Your task to perform on an android device: turn smart compose on in the gmail app Image 0: 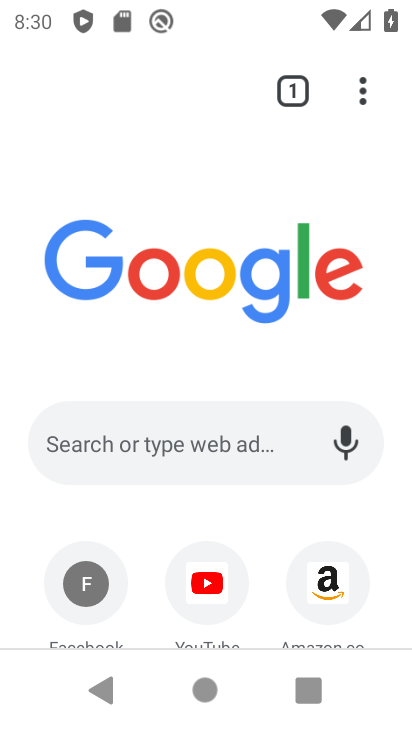
Step 0: press home button
Your task to perform on an android device: turn smart compose on in the gmail app Image 1: 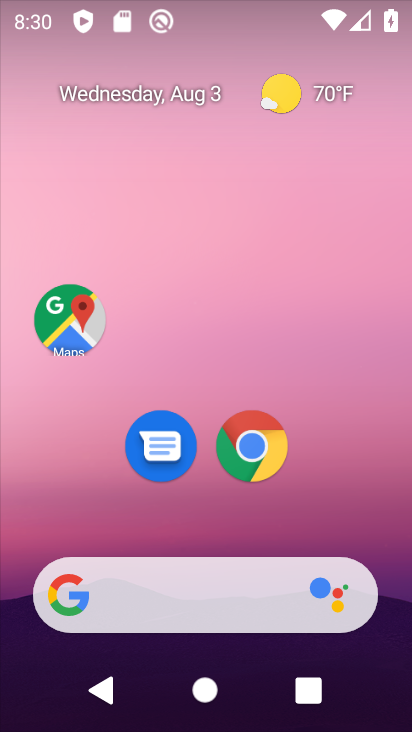
Step 1: drag from (387, 554) to (319, 60)
Your task to perform on an android device: turn smart compose on in the gmail app Image 2: 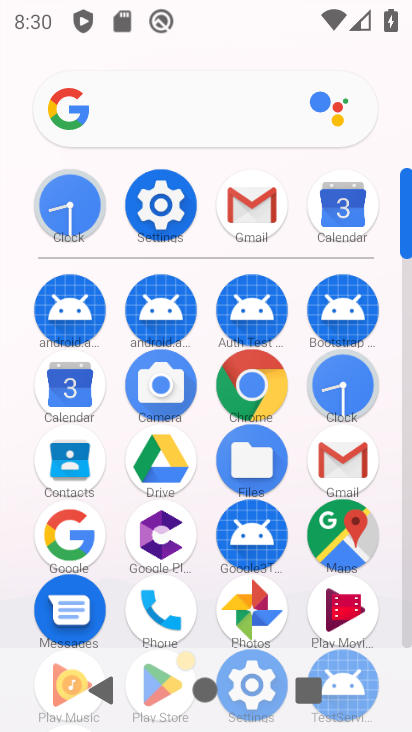
Step 2: click (243, 203)
Your task to perform on an android device: turn smart compose on in the gmail app Image 3: 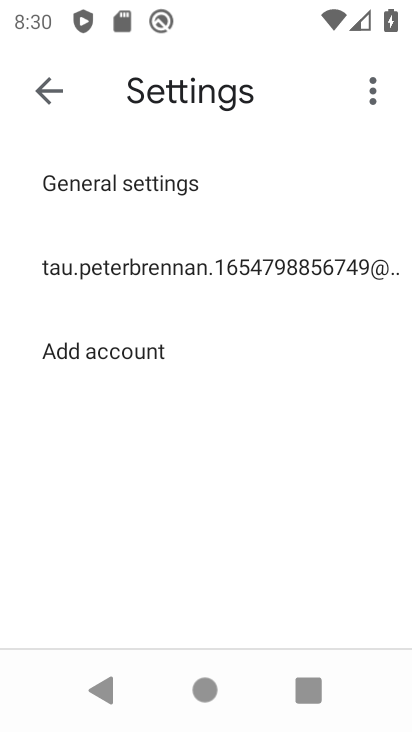
Step 3: click (131, 272)
Your task to perform on an android device: turn smart compose on in the gmail app Image 4: 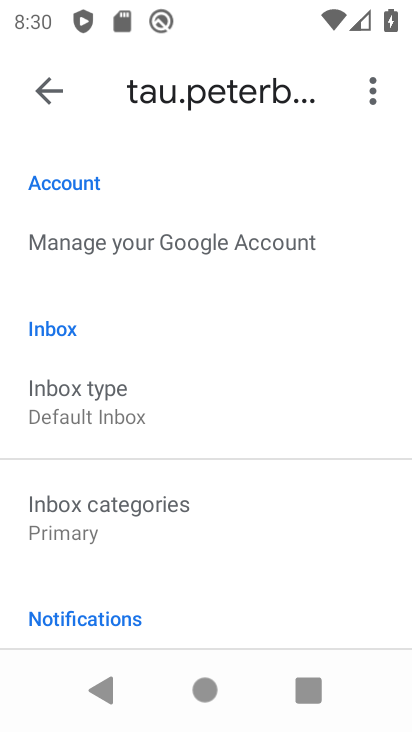
Step 4: drag from (220, 602) to (217, 197)
Your task to perform on an android device: turn smart compose on in the gmail app Image 5: 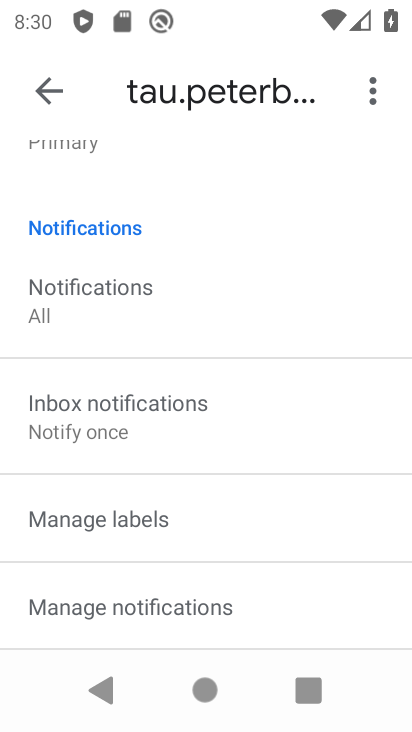
Step 5: drag from (231, 581) to (246, 168)
Your task to perform on an android device: turn smart compose on in the gmail app Image 6: 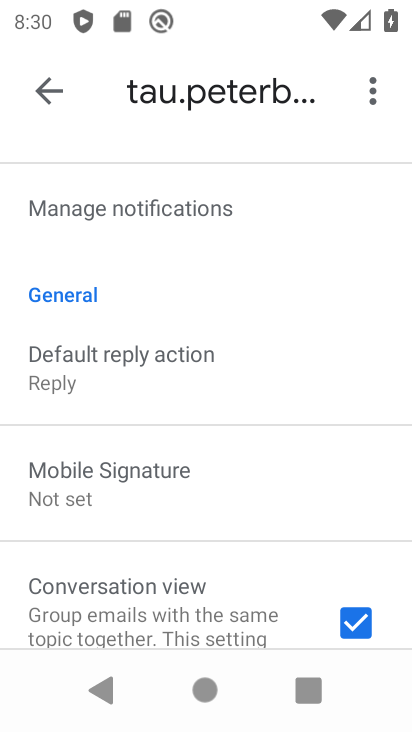
Step 6: drag from (276, 622) to (269, 234)
Your task to perform on an android device: turn smart compose on in the gmail app Image 7: 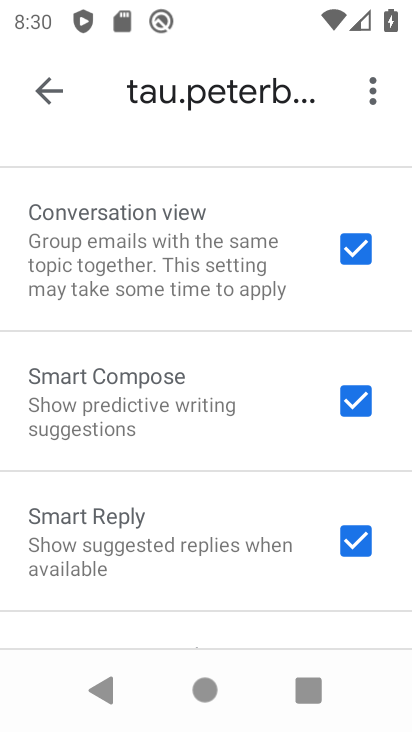
Step 7: drag from (202, 599) to (182, 246)
Your task to perform on an android device: turn smart compose on in the gmail app Image 8: 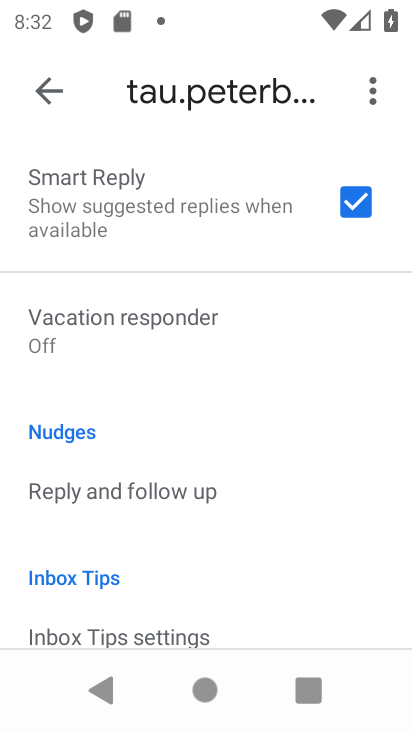
Step 8: drag from (209, 586) to (204, 127)
Your task to perform on an android device: turn smart compose on in the gmail app Image 9: 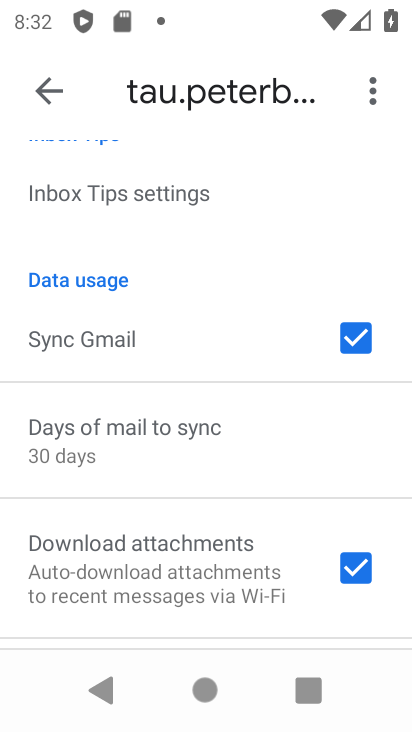
Step 9: drag from (241, 559) to (220, 134)
Your task to perform on an android device: turn smart compose on in the gmail app Image 10: 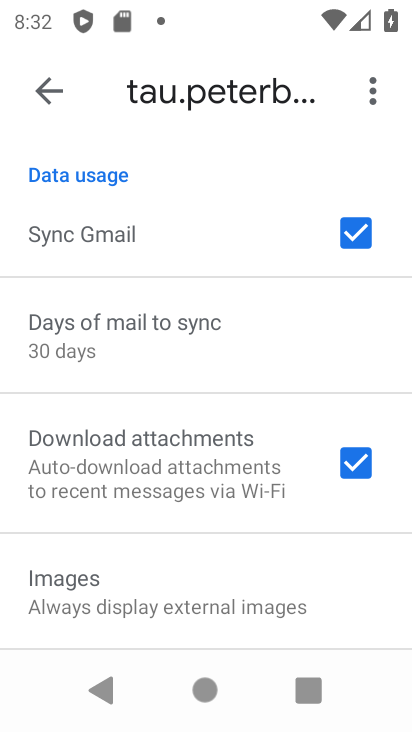
Step 10: drag from (217, 581) to (202, 272)
Your task to perform on an android device: turn smart compose on in the gmail app Image 11: 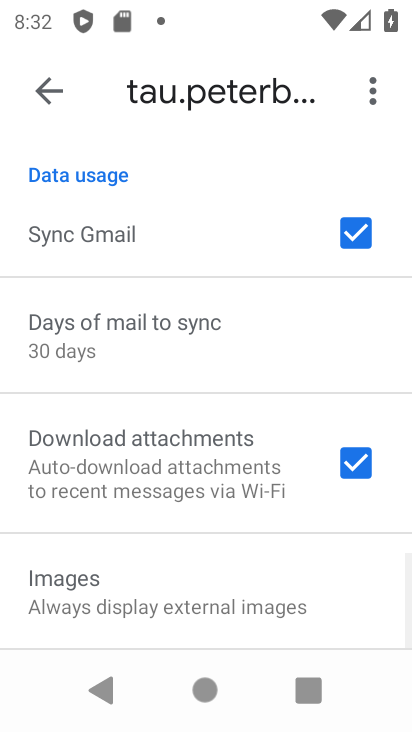
Step 11: drag from (212, 420) to (211, 626)
Your task to perform on an android device: turn smart compose on in the gmail app Image 12: 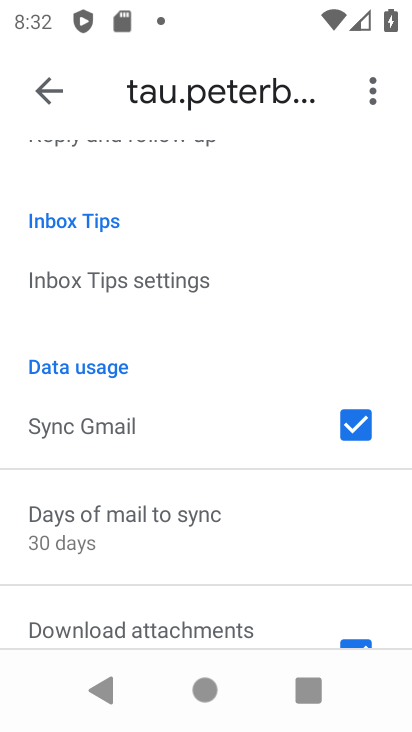
Step 12: click (45, 84)
Your task to perform on an android device: turn smart compose on in the gmail app Image 13: 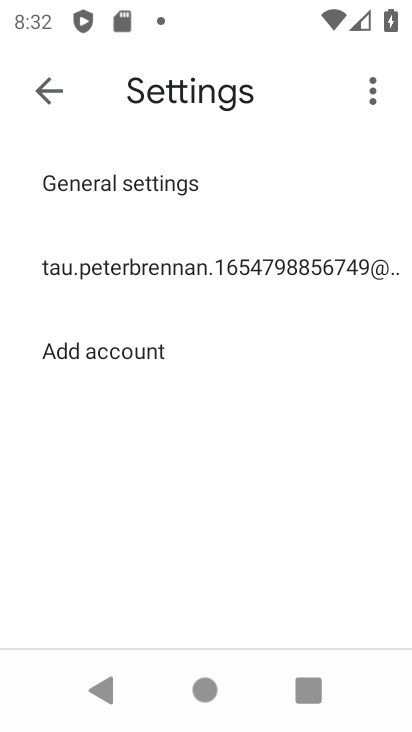
Step 13: click (152, 265)
Your task to perform on an android device: turn smart compose on in the gmail app Image 14: 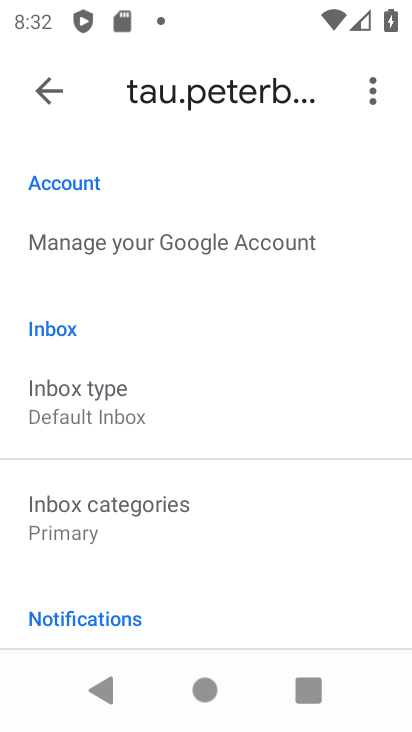
Step 14: task complete